Your task to perform on an android device: Go to calendar. Show me events next week Image 0: 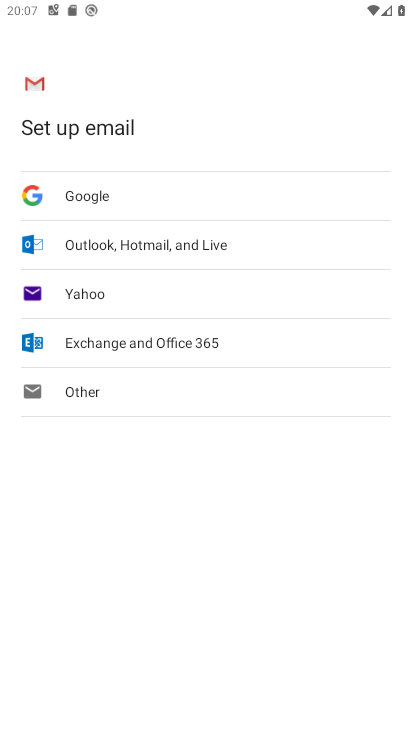
Step 0: press home button
Your task to perform on an android device: Go to calendar. Show me events next week Image 1: 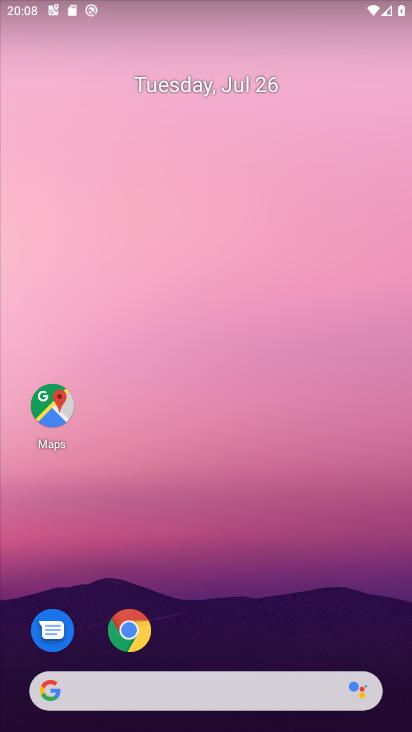
Step 1: drag from (393, 713) to (348, 56)
Your task to perform on an android device: Go to calendar. Show me events next week Image 2: 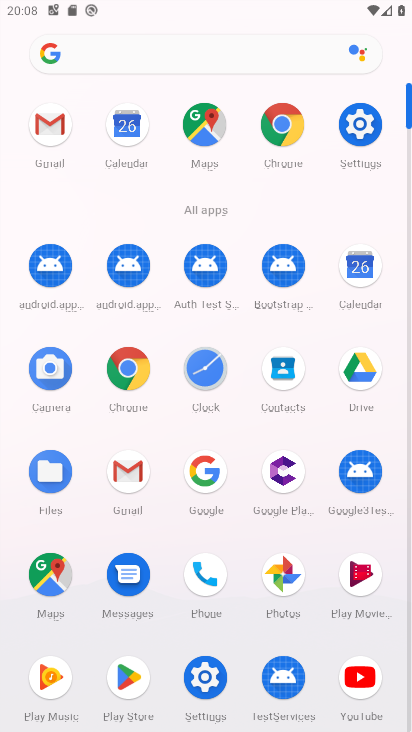
Step 2: click (353, 272)
Your task to perform on an android device: Go to calendar. Show me events next week Image 3: 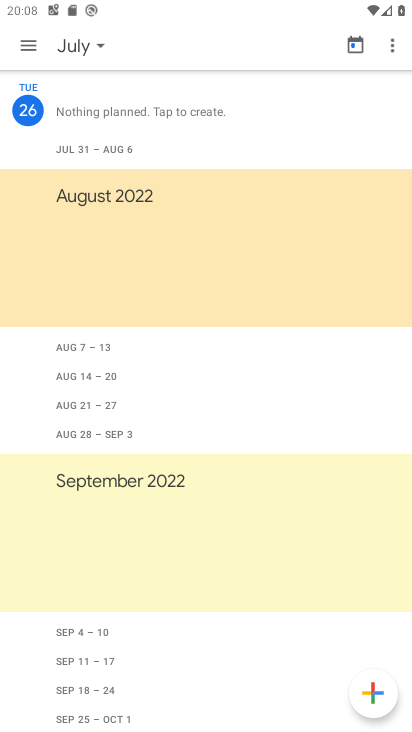
Step 3: click (95, 49)
Your task to perform on an android device: Go to calendar. Show me events next week Image 4: 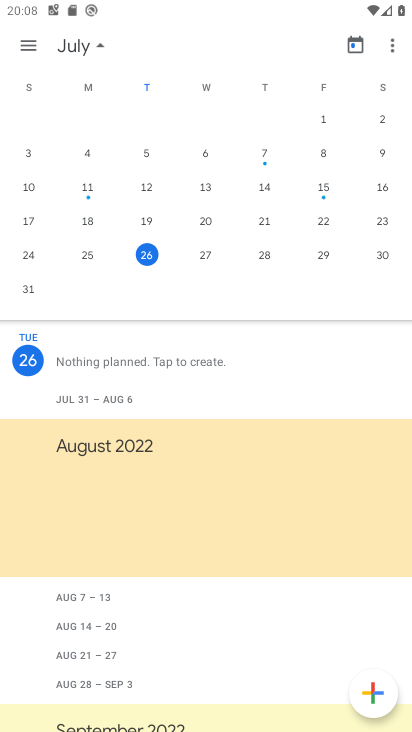
Step 4: click (23, 293)
Your task to perform on an android device: Go to calendar. Show me events next week Image 5: 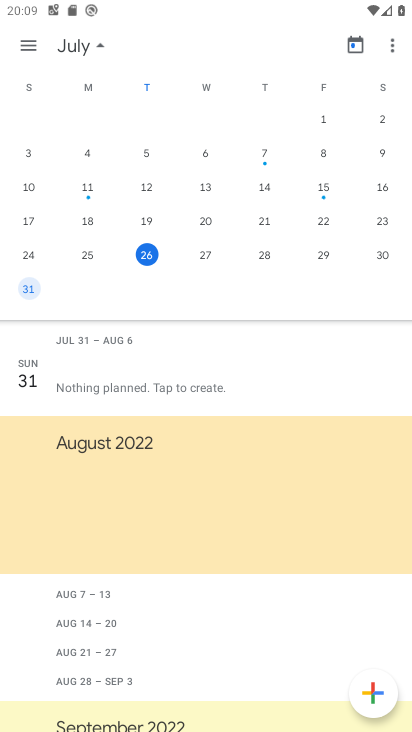
Step 5: click (30, 53)
Your task to perform on an android device: Go to calendar. Show me events next week Image 6: 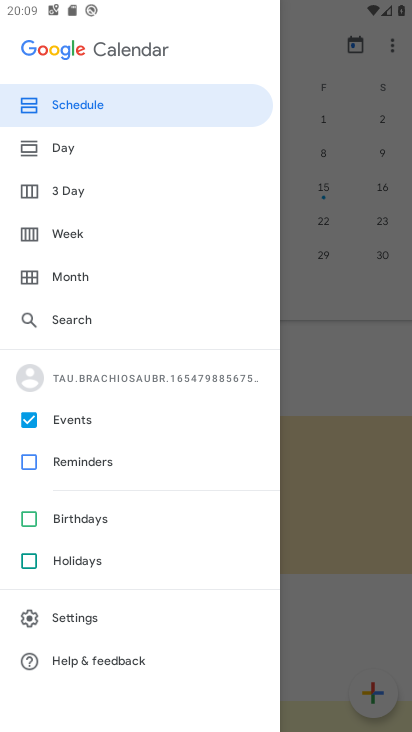
Step 6: click (66, 231)
Your task to perform on an android device: Go to calendar. Show me events next week Image 7: 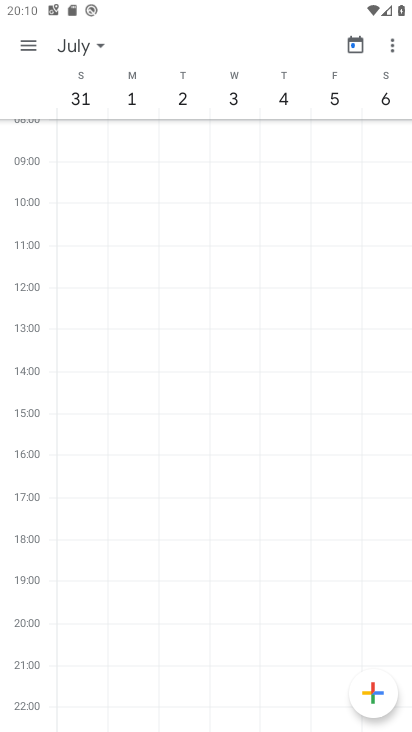
Step 7: task complete